Your task to perform on an android device: change the clock display to digital Image 0: 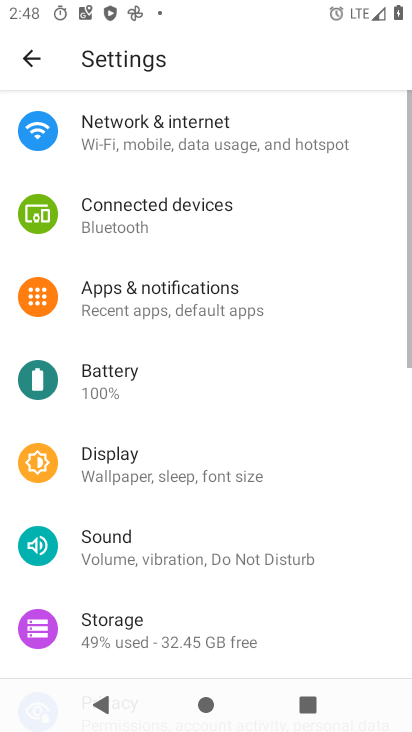
Step 0: press home button
Your task to perform on an android device: change the clock display to digital Image 1: 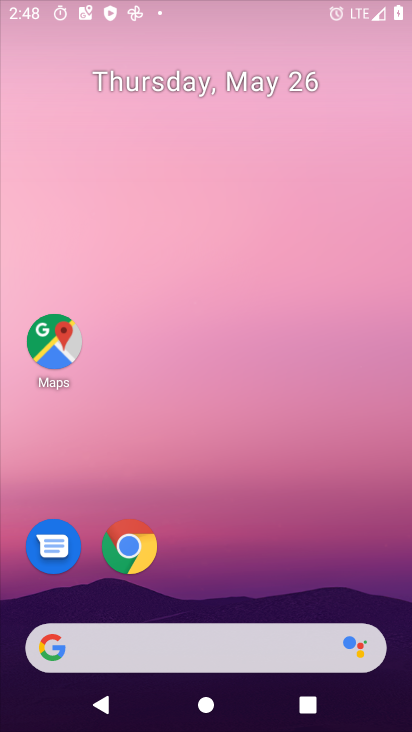
Step 1: drag from (221, 574) to (239, 119)
Your task to perform on an android device: change the clock display to digital Image 2: 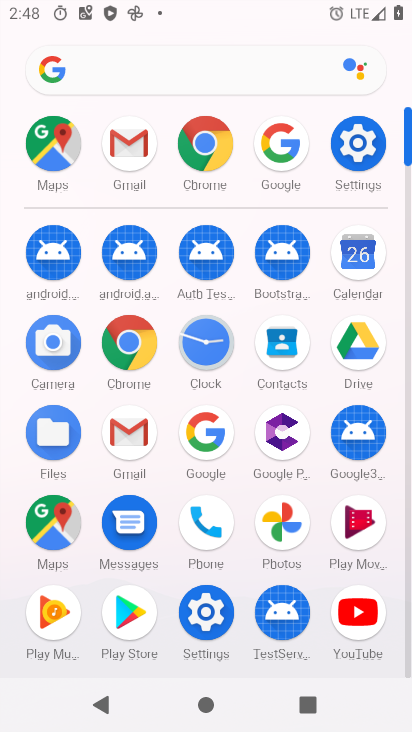
Step 2: click (201, 339)
Your task to perform on an android device: change the clock display to digital Image 3: 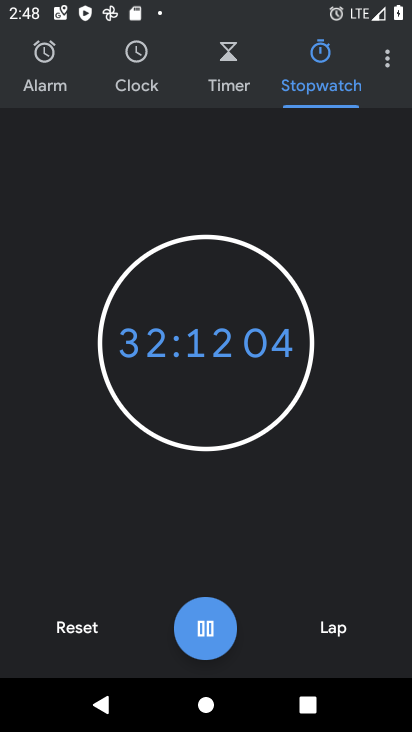
Step 3: click (380, 63)
Your task to perform on an android device: change the clock display to digital Image 4: 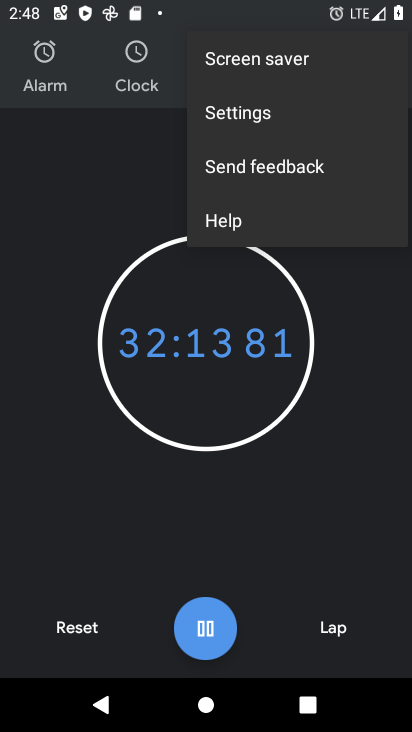
Step 4: click (222, 122)
Your task to perform on an android device: change the clock display to digital Image 5: 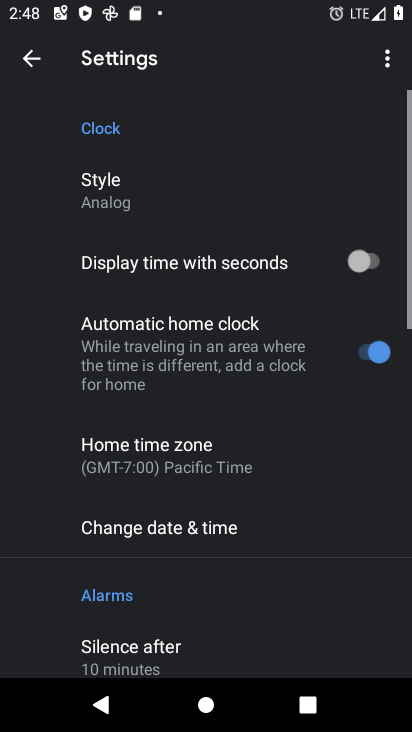
Step 5: click (115, 192)
Your task to perform on an android device: change the clock display to digital Image 6: 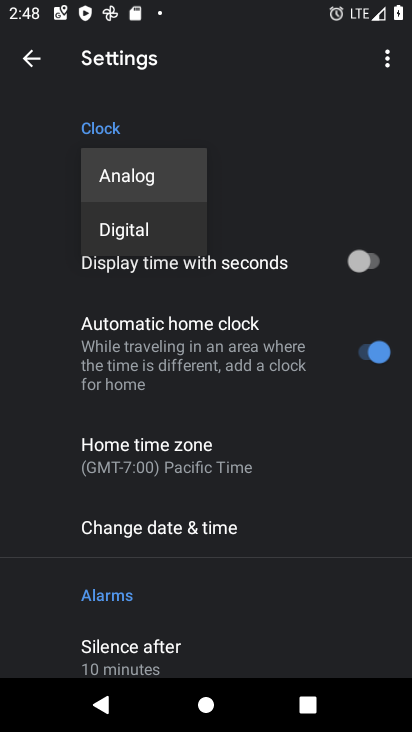
Step 6: click (137, 234)
Your task to perform on an android device: change the clock display to digital Image 7: 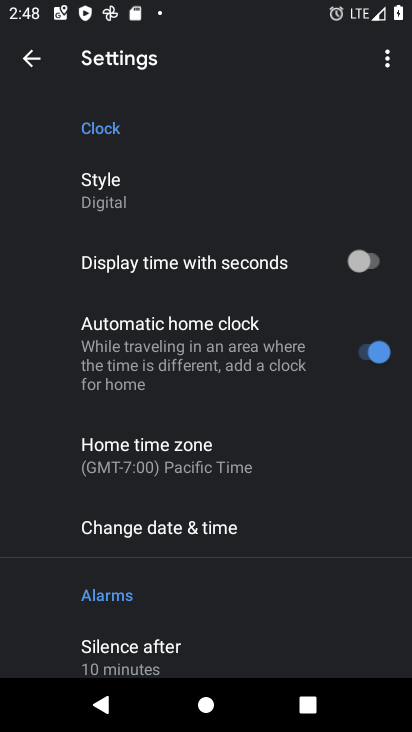
Step 7: task complete